Your task to perform on an android device: Search for Mexican restaurants on Maps Image 0: 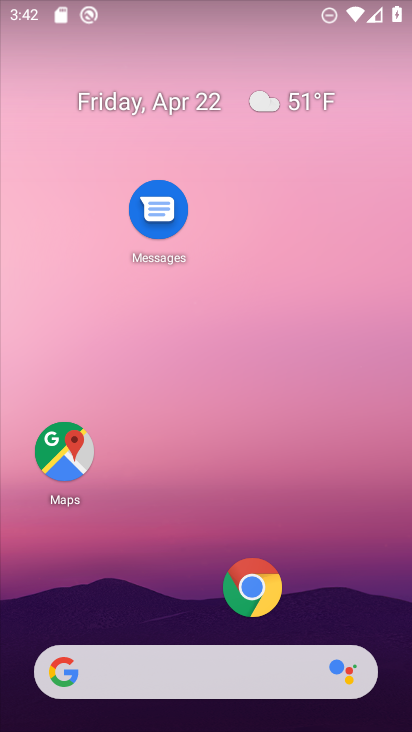
Step 0: click (53, 461)
Your task to perform on an android device: Search for Mexican restaurants on Maps Image 1: 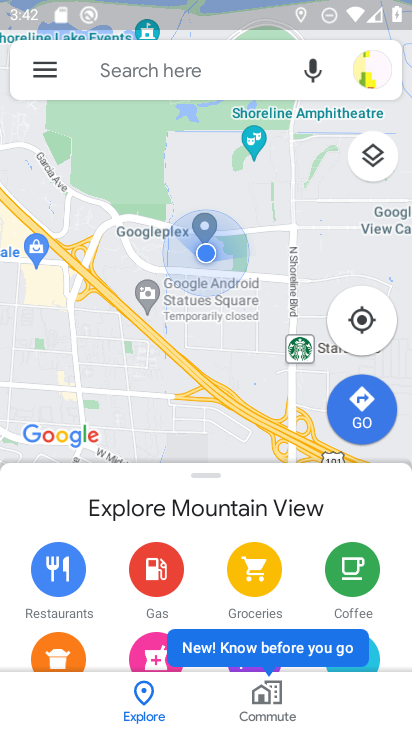
Step 1: click (169, 77)
Your task to perform on an android device: Search for Mexican restaurants on Maps Image 2: 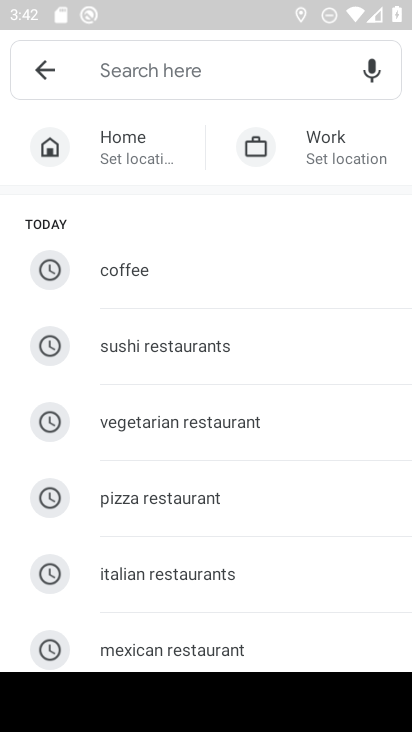
Step 2: type "Mexican restaurants"
Your task to perform on an android device: Search for Mexican restaurants on Maps Image 3: 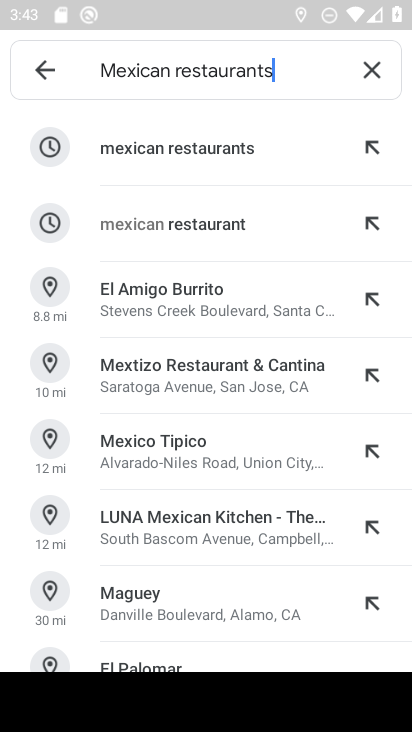
Step 3: click (211, 141)
Your task to perform on an android device: Search for Mexican restaurants on Maps Image 4: 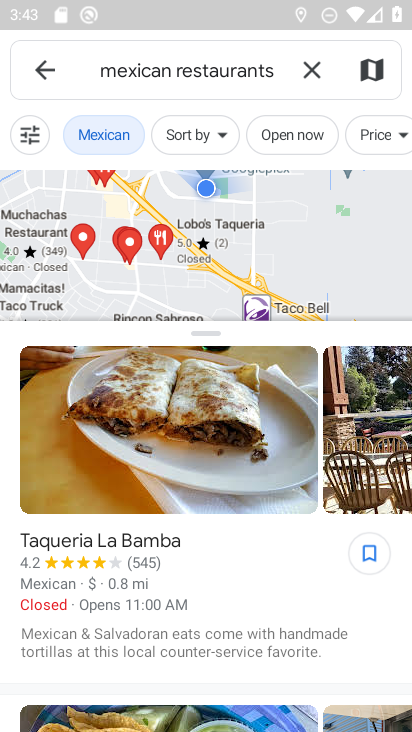
Step 4: task complete